Your task to perform on an android device: Is it going to rain today? Image 0: 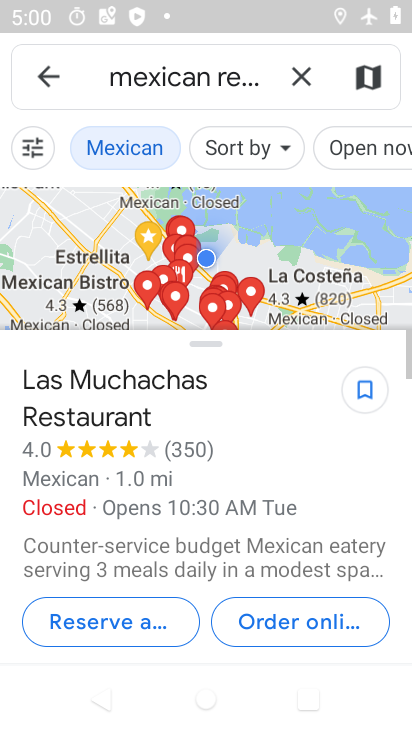
Step 0: press home button
Your task to perform on an android device: Is it going to rain today? Image 1: 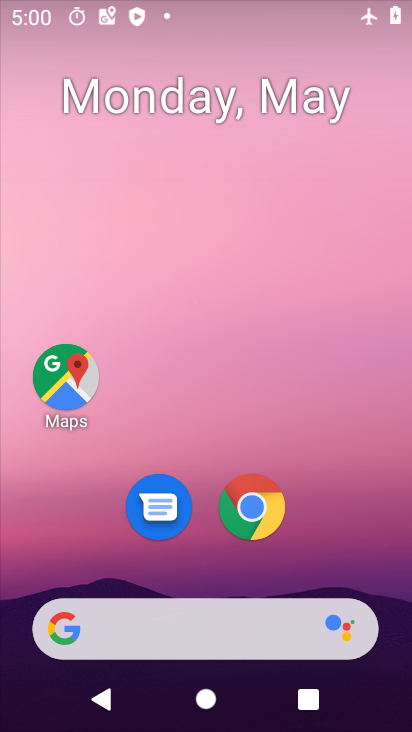
Step 1: drag from (351, 493) to (335, 57)
Your task to perform on an android device: Is it going to rain today? Image 2: 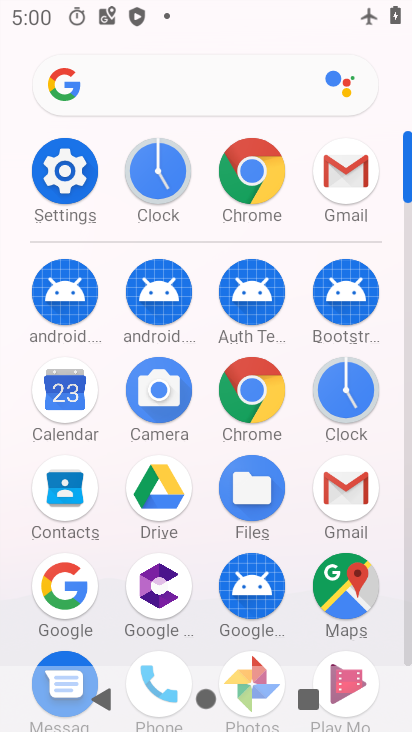
Step 2: click (47, 98)
Your task to perform on an android device: Is it going to rain today? Image 3: 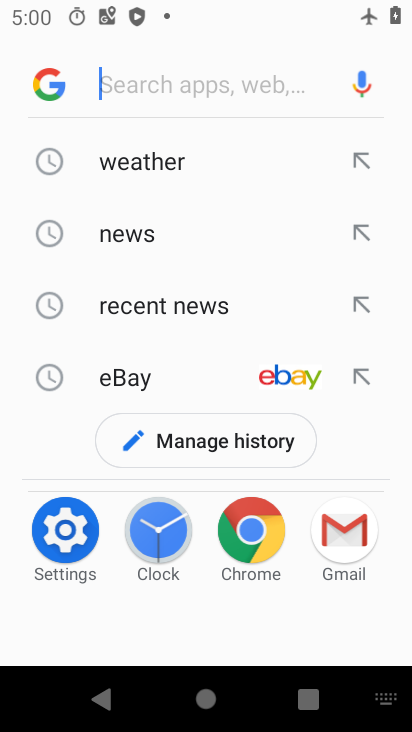
Step 3: click (47, 98)
Your task to perform on an android device: Is it going to rain today? Image 4: 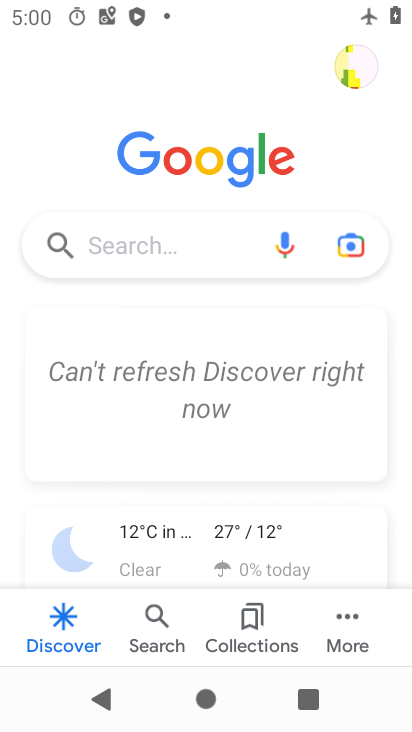
Step 4: task complete